Your task to perform on an android device: turn off location Image 0: 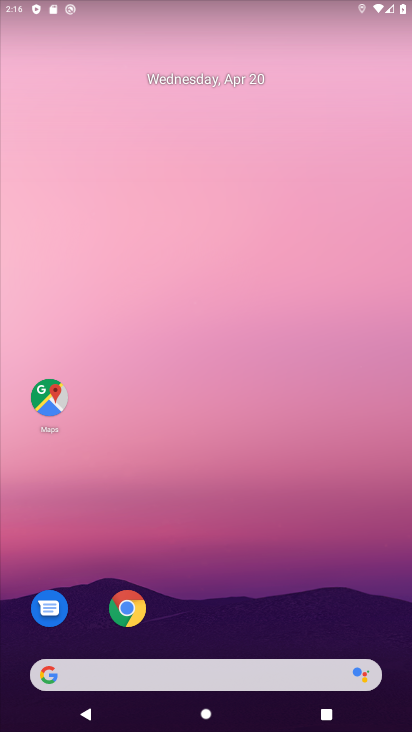
Step 0: drag from (350, 520) to (372, 92)
Your task to perform on an android device: turn off location Image 1: 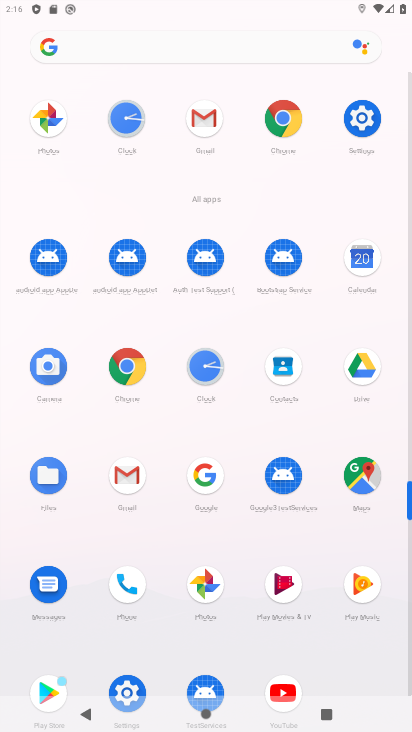
Step 1: click (371, 119)
Your task to perform on an android device: turn off location Image 2: 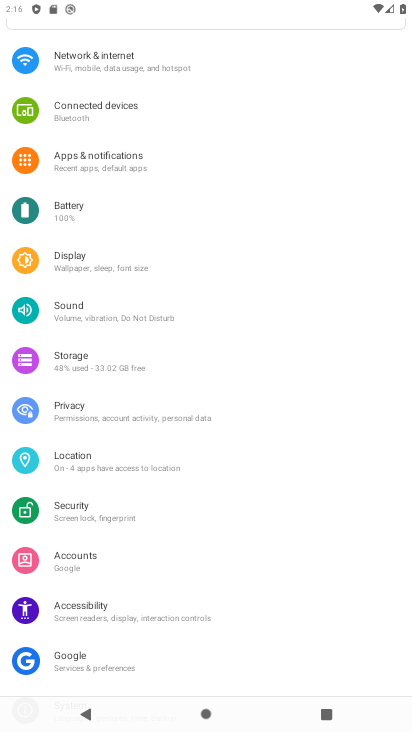
Step 2: click (76, 464)
Your task to perform on an android device: turn off location Image 3: 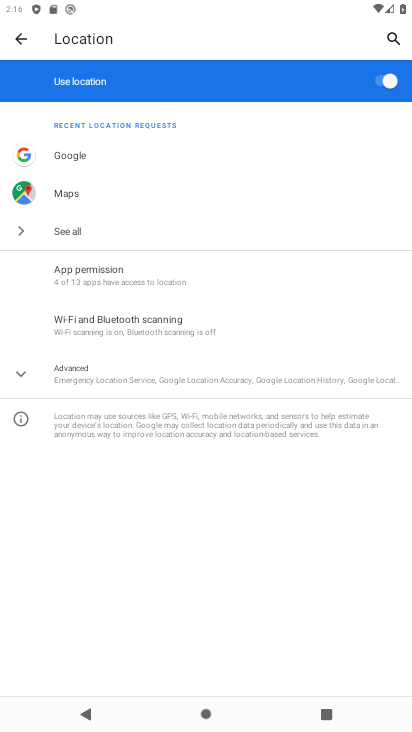
Step 3: click (377, 84)
Your task to perform on an android device: turn off location Image 4: 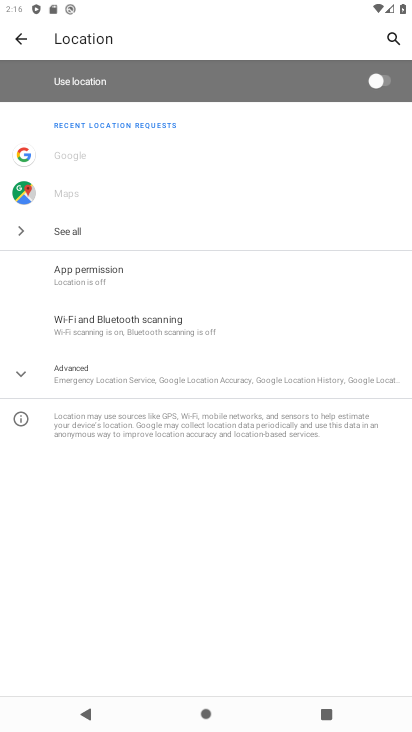
Step 4: task complete